Your task to perform on an android device: Add "usb-b" to the cart on costco Image 0: 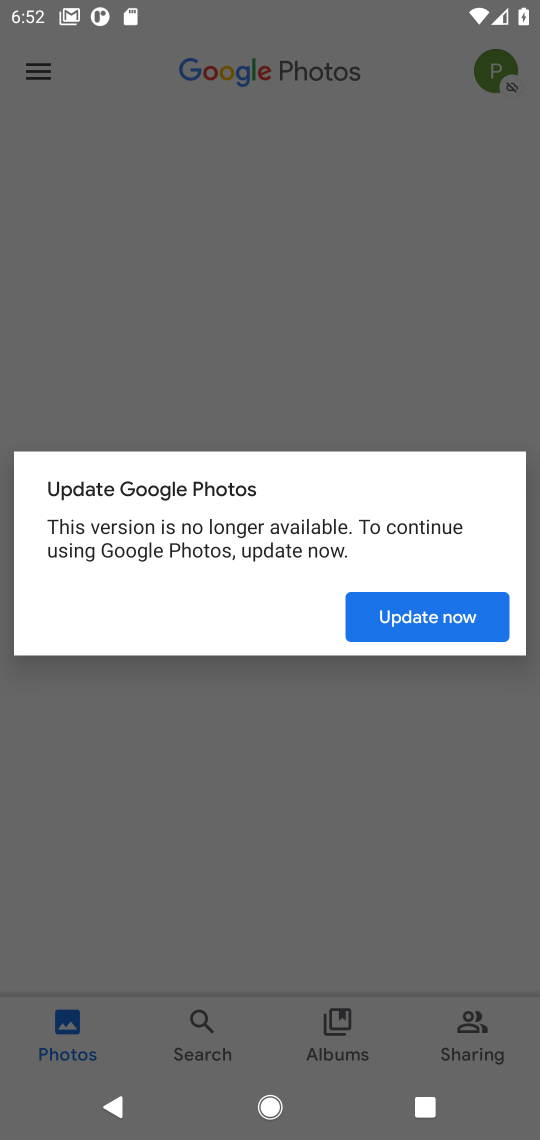
Step 0: press home button
Your task to perform on an android device: Add "usb-b" to the cart on costco Image 1: 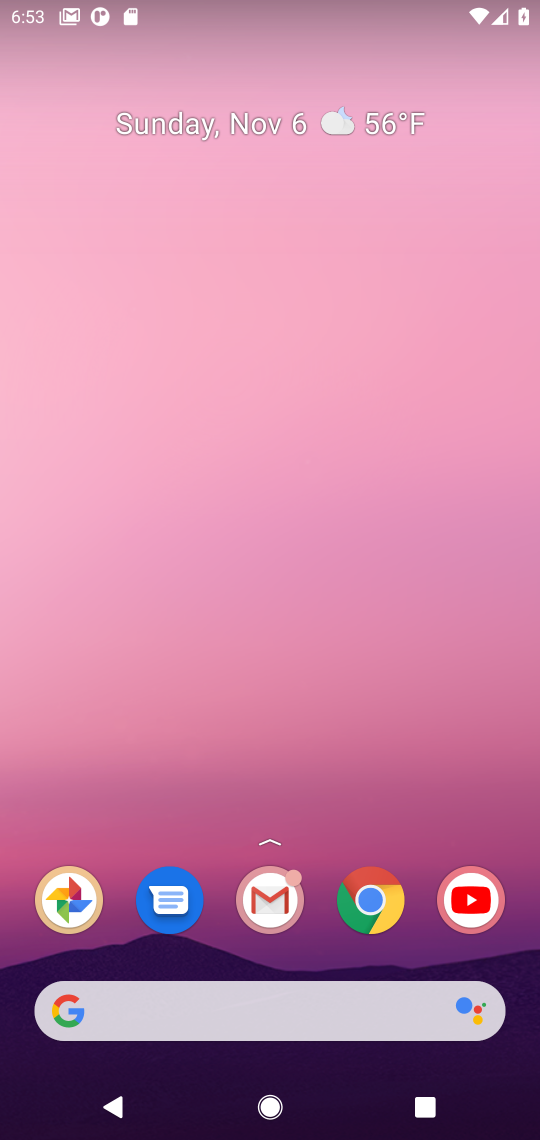
Step 1: drag from (319, 945) to (491, 54)
Your task to perform on an android device: Add "usb-b" to the cart on costco Image 2: 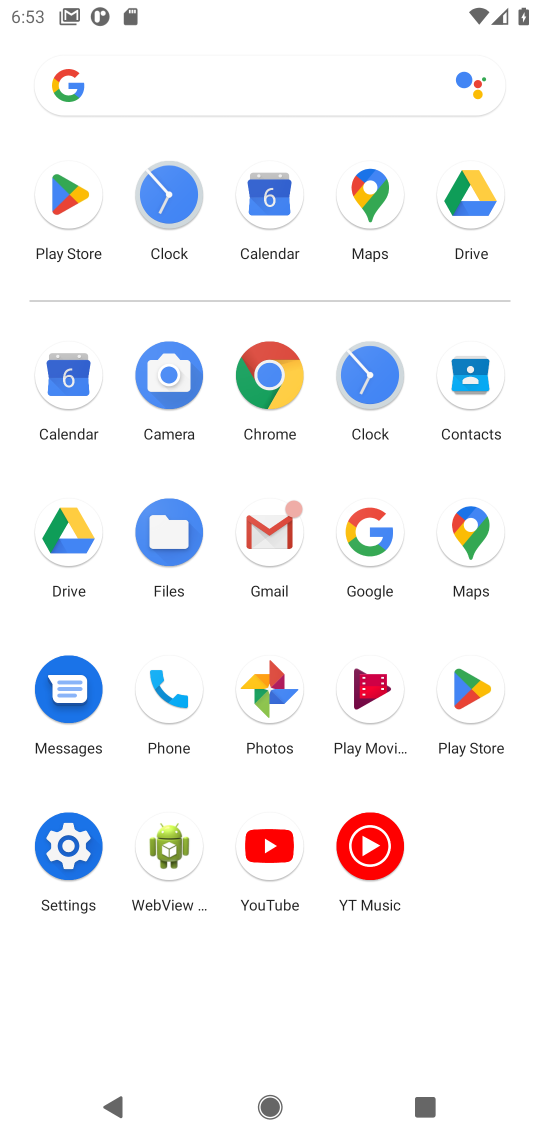
Step 2: click (281, 381)
Your task to perform on an android device: Add "usb-b" to the cart on costco Image 3: 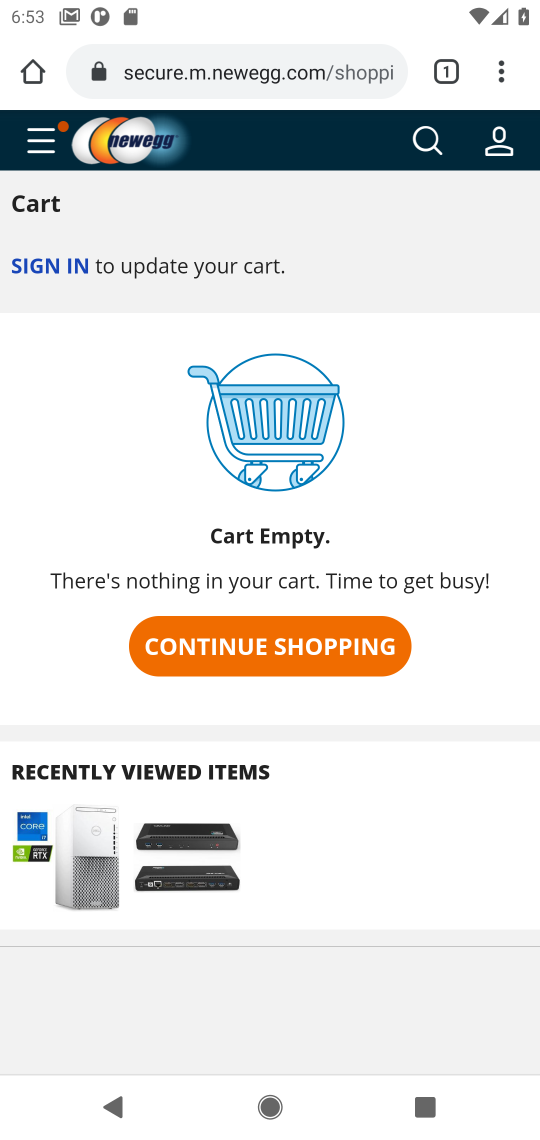
Step 3: click (192, 67)
Your task to perform on an android device: Add "usb-b" to the cart on costco Image 4: 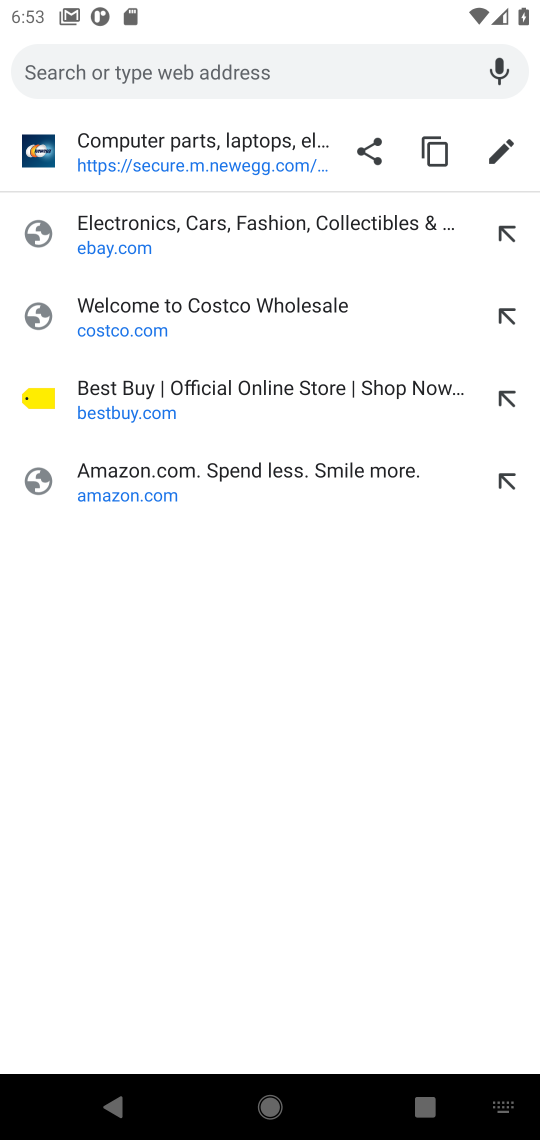
Step 4: type "costco.com"
Your task to perform on an android device: Add "usb-b" to the cart on costco Image 5: 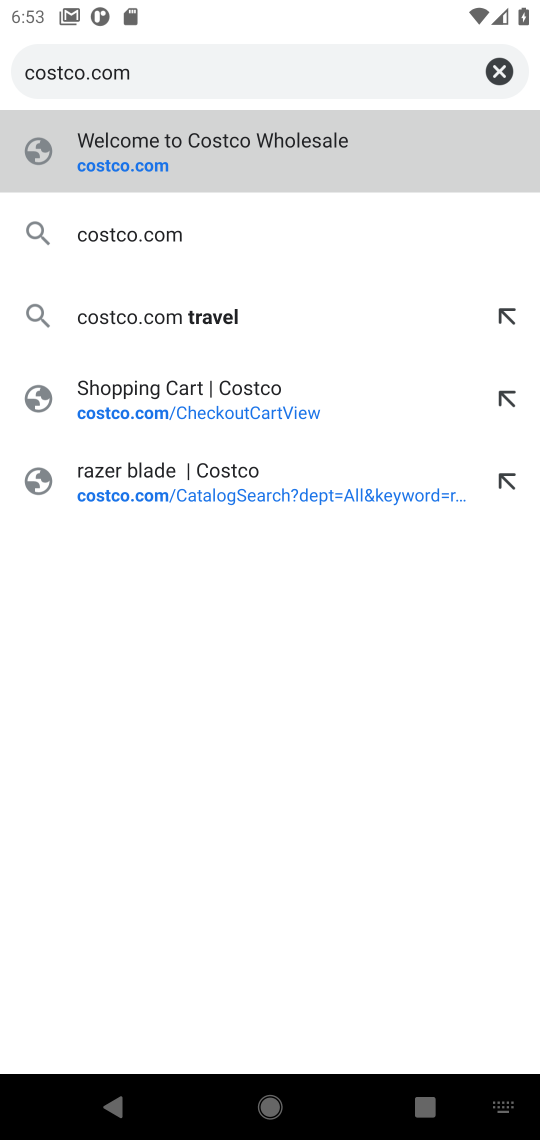
Step 5: press enter
Your task to perform on an android device: Add "usb-b" to the cart on costco Image 6: 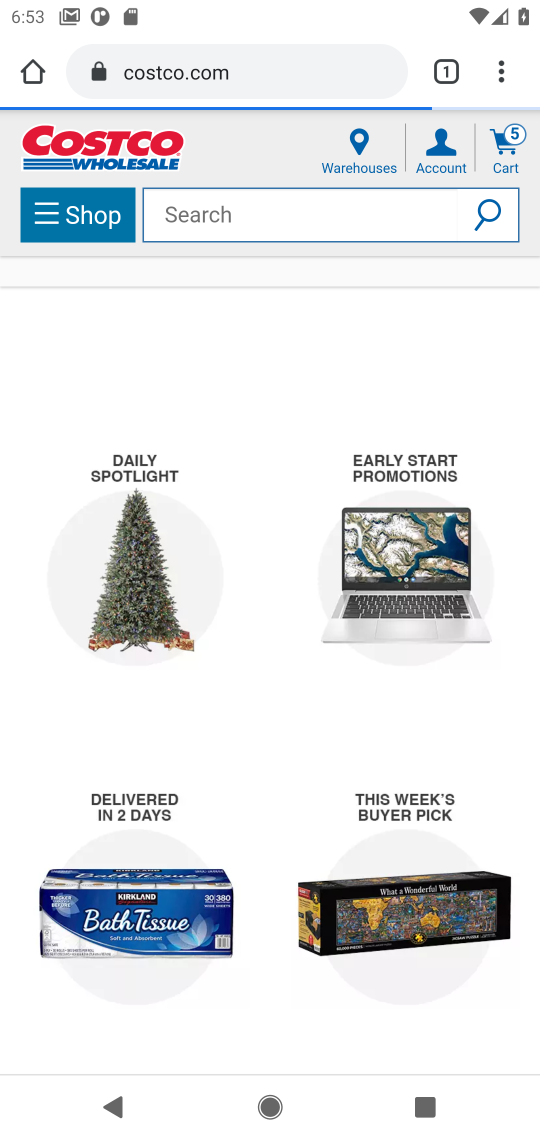
Step 6: click (323, 207)
Your task to perform on an android device: Add "usb-b" to the cart on costco Image 7: 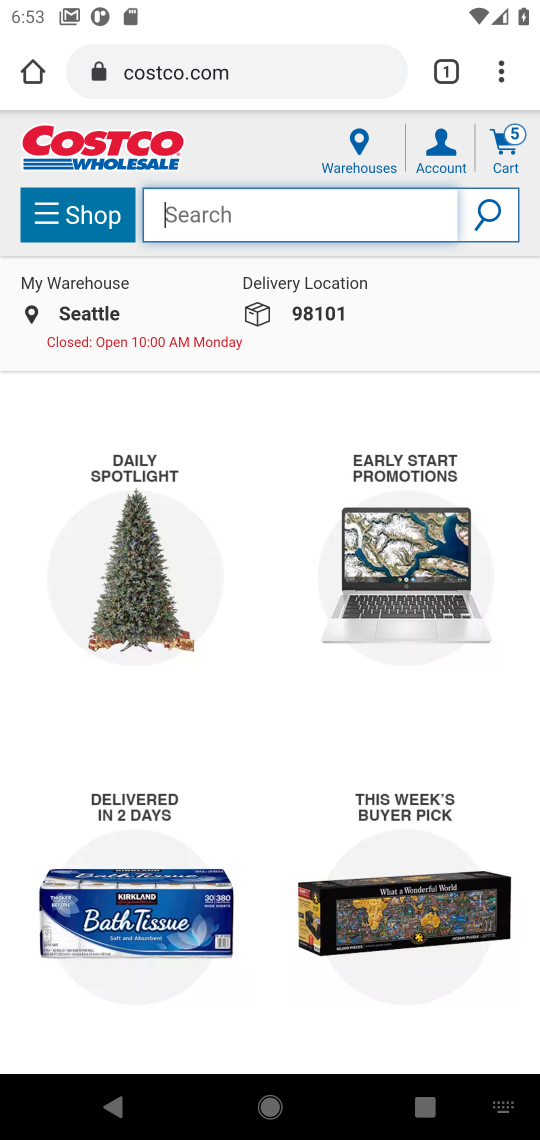
Step 7: type "usb--b"
Your task to perform on an android device: Add "usb-b" to the cart on costco Image 8: 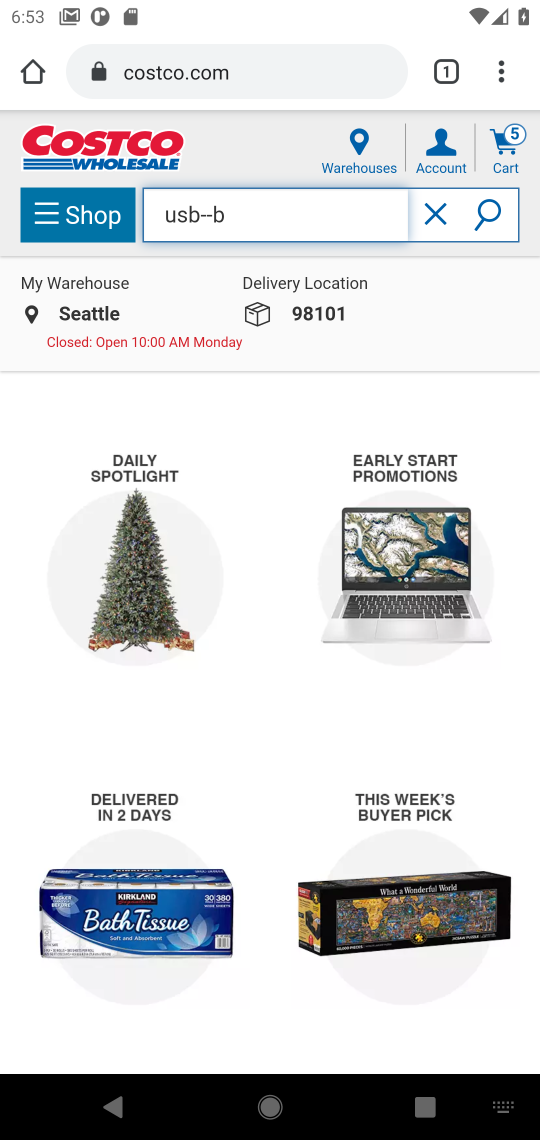
Step 8: press enter
Your task to perform on an android device: Add "usb-b" to the cart on costco Image 9: 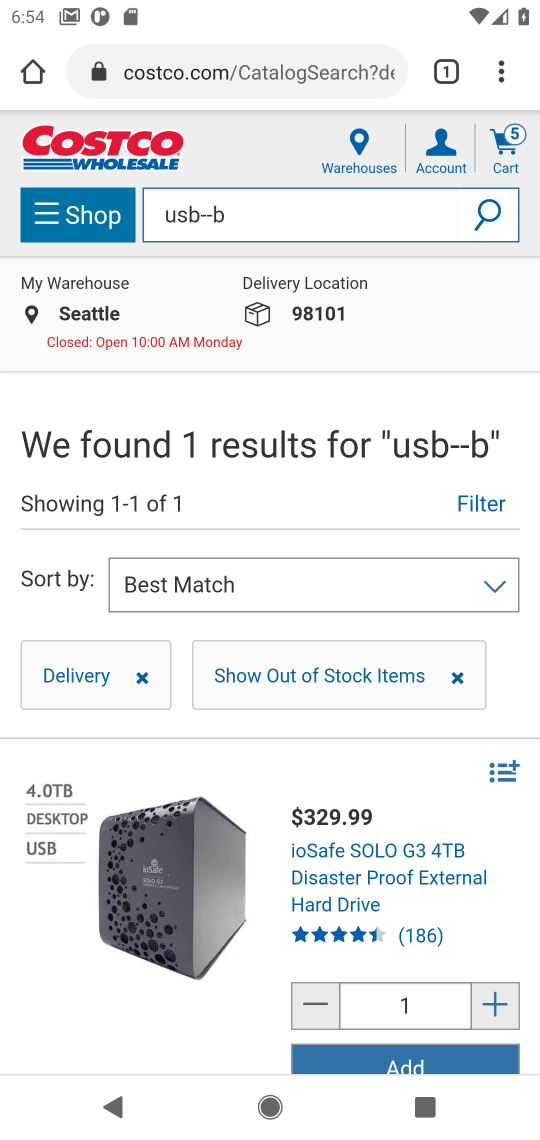
Step 9: drag from (389, 787) to (407, 283)
Your task to perform on an android device: Add "usb-b" to the cart on costco Image 10: 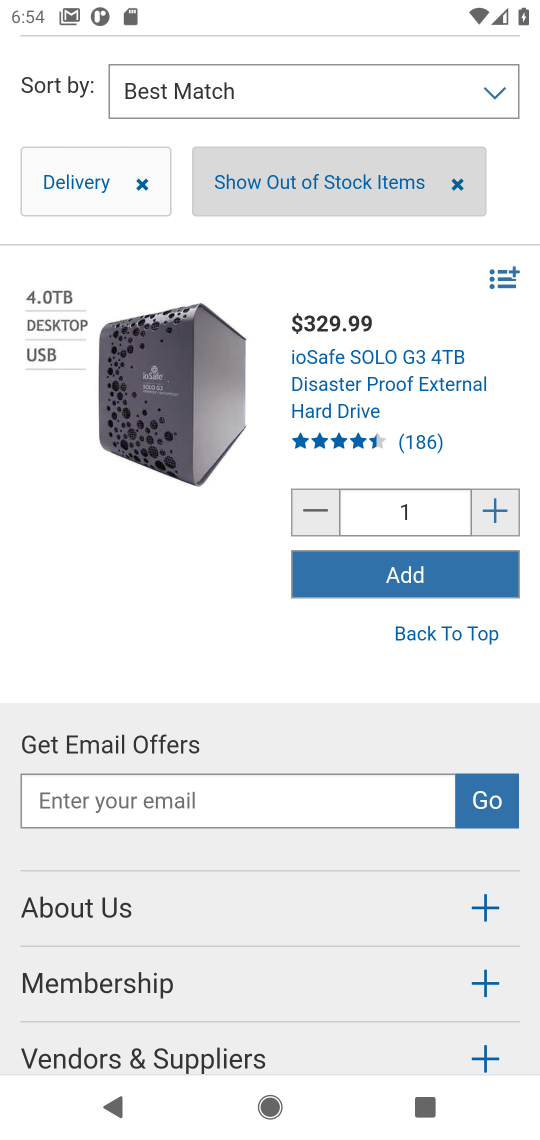
Step 10: drag from (237, 663) to (211, 1138)
Your task to perform on an android device: Add "usb-b" to the cart on costco Image 11: 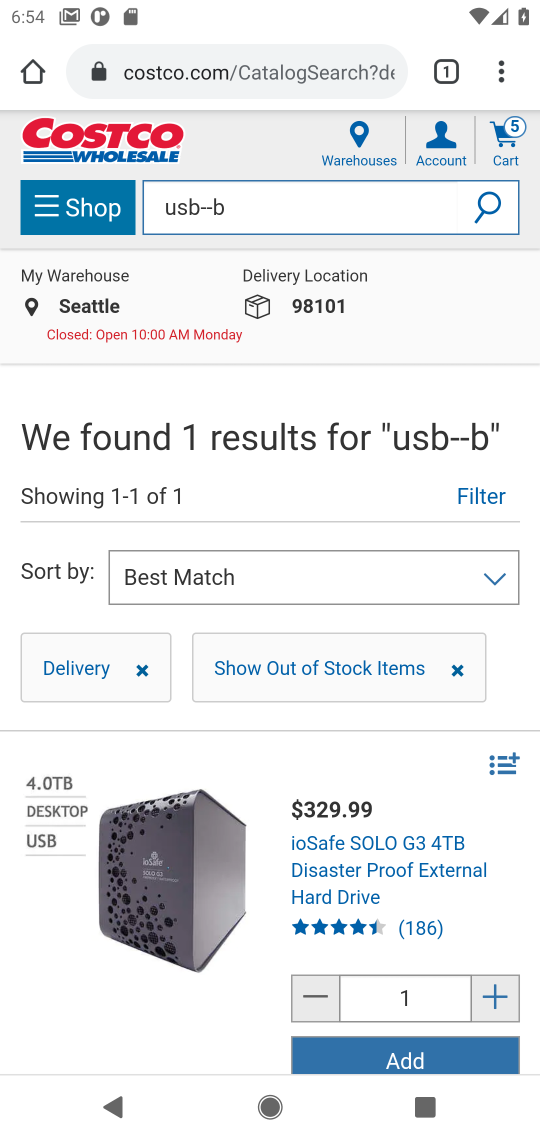
Step 11: click (356, 863)
Your task to perform on an android device: Add "usb-b" to the cart on costco Image 12: 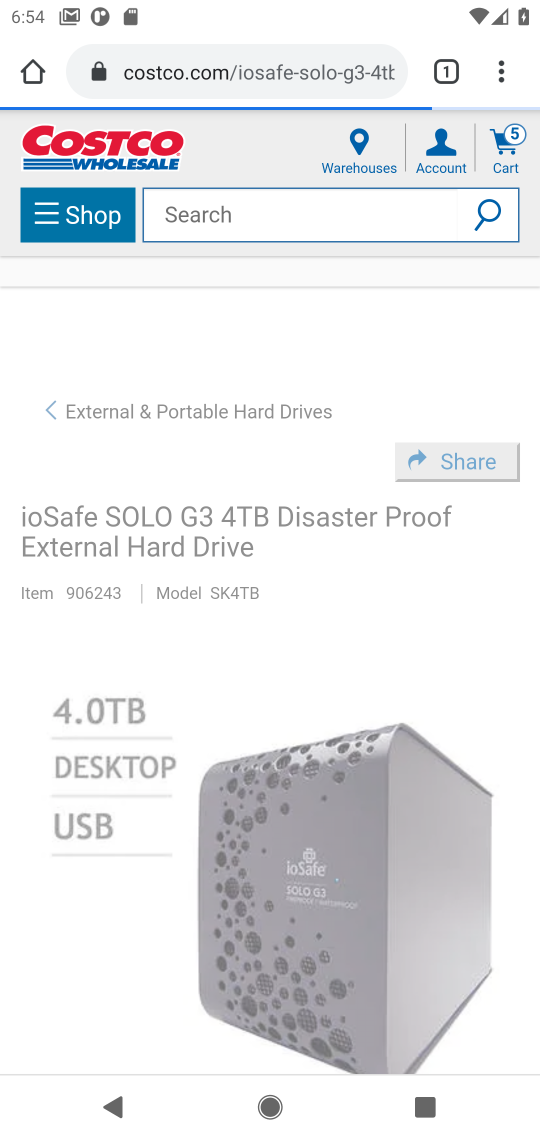
Step 12: task complete